Your task to perform on an android device: Find coffee shops on Maps Image 0: 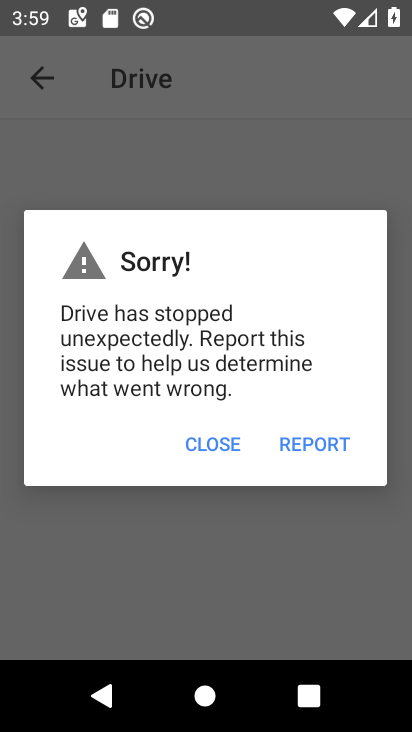
Step 0: press back button
Your task to perform on an android device: Find coffee shops on Maps Image 1: 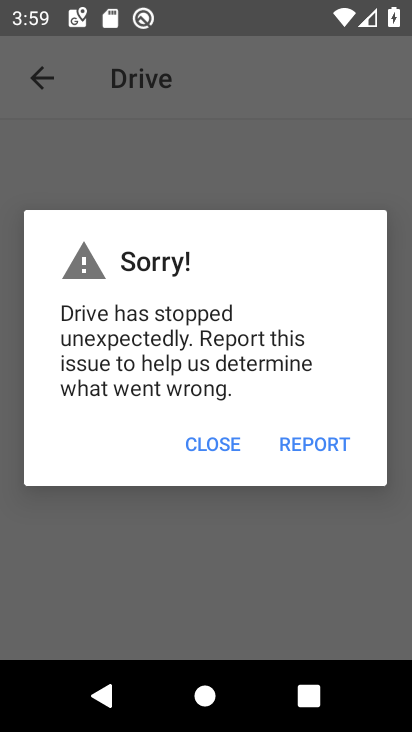
Step 1: press home button
Your task to perform on an android device: Find coffee shops on Maps Image 2: 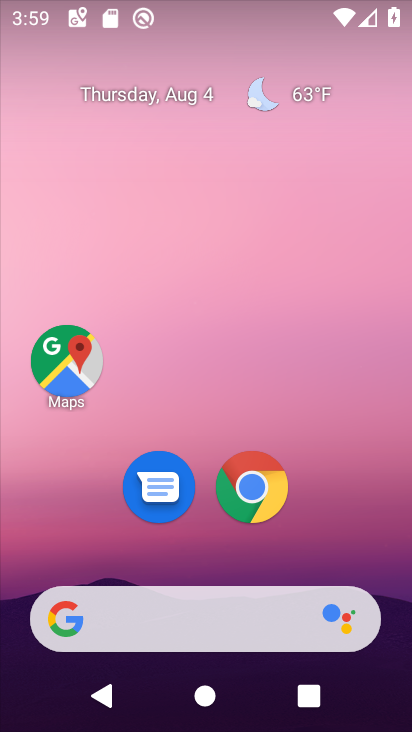
Step 2: click (69, 364)
Your task to perform on an android device: Find coffee shops on Maps Image 3: 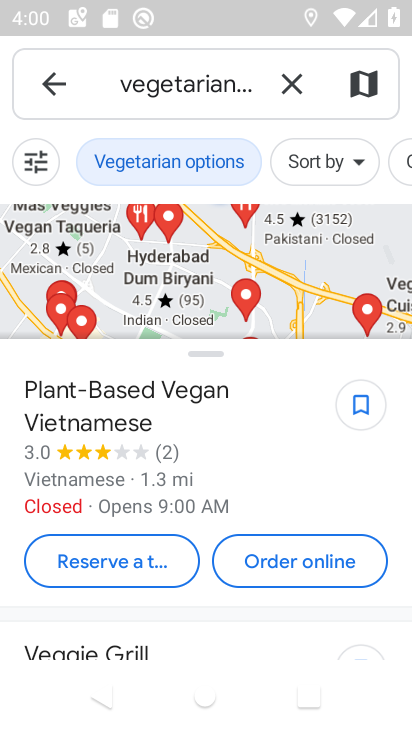
Step 3: click (291, 78)
Your task to perform on an android device: Find coffee shops on Maps Image 4: 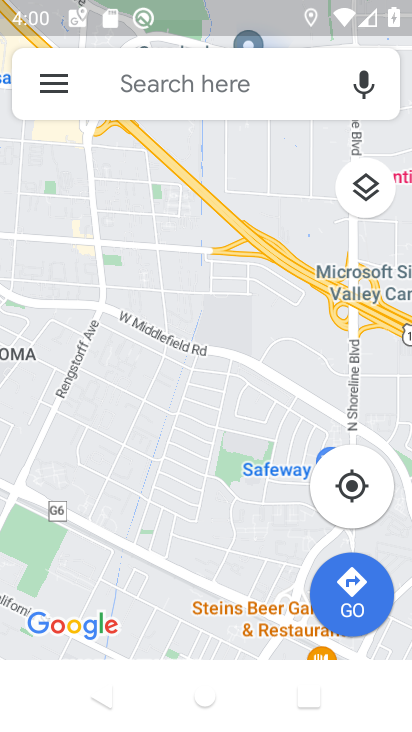
Step 4: click (215, 84)
Your task to perform on an android device: Find coffee shops on Maps Image 5: 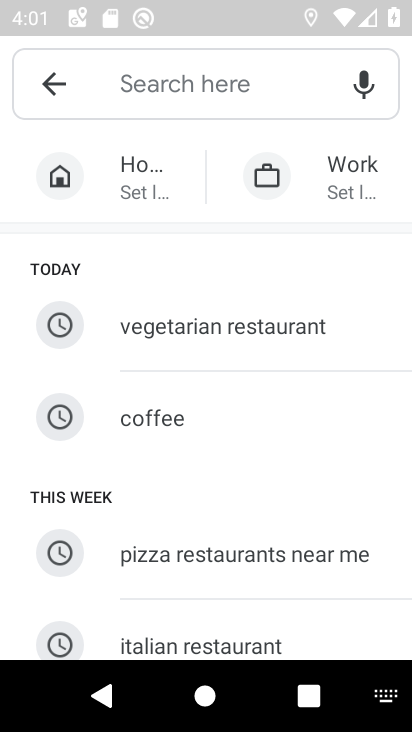
Step 5: click (142, 416)
Your task to perform on an android device: Find coffee shops on Maps Image 6: 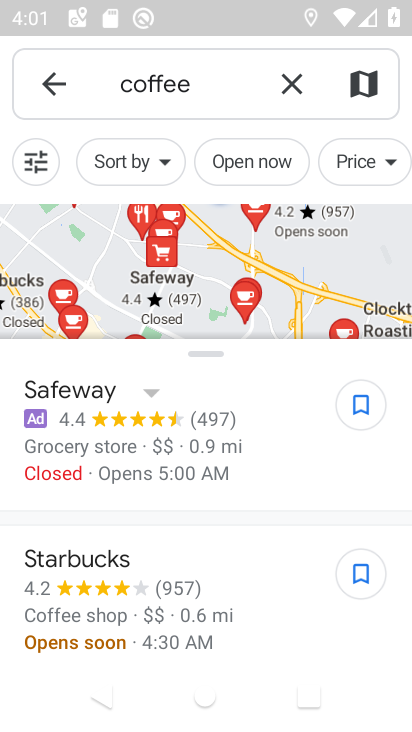
Step 6: task complete